Your task to perform on an android device: toggle airplane mode Image 0: 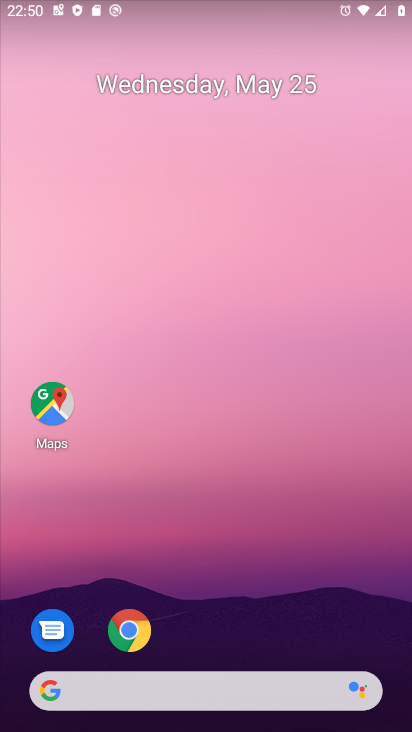
Step 0: drag from (207, 626) to (212, 219)
Your task to perform on an android device: toggle airplane mode Image 1: 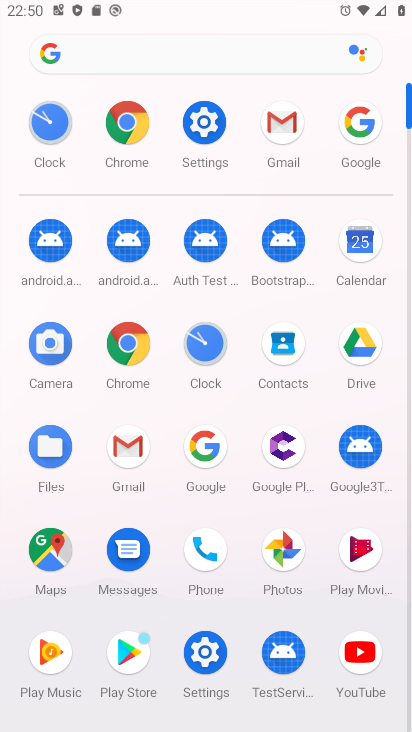
Step 1: click (219, 124)
Your task to perform on an android device: toggle airplane mode Image 2: 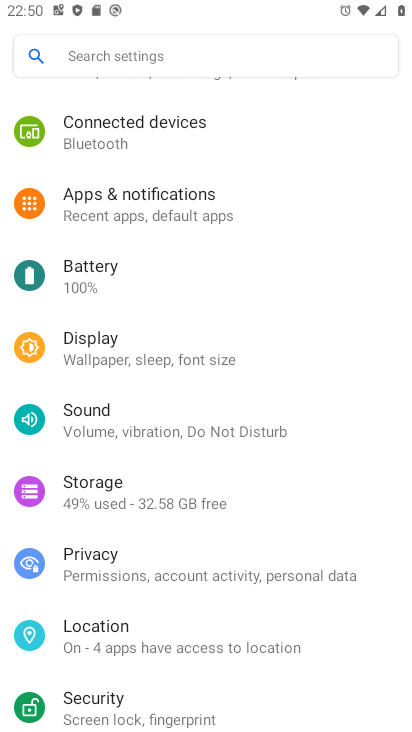
Step 2: drag from (236, 135) to (256, 501)
Your task to perform on an android device: toggle airplane mode Image 3: 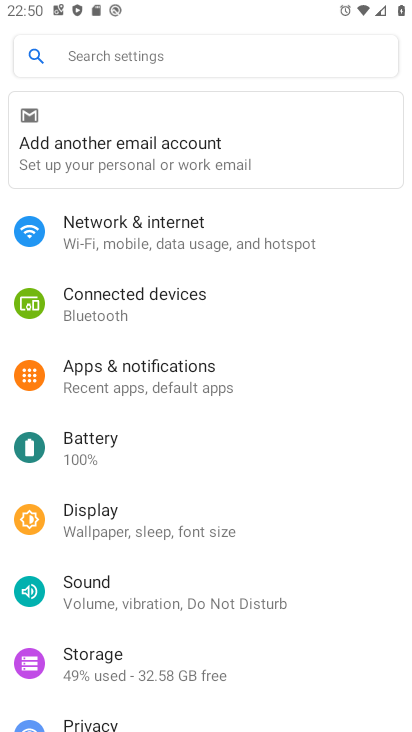
Step 3: click (169, 236)
Your task to perform on an android device: toggle airplane mode Image 4: 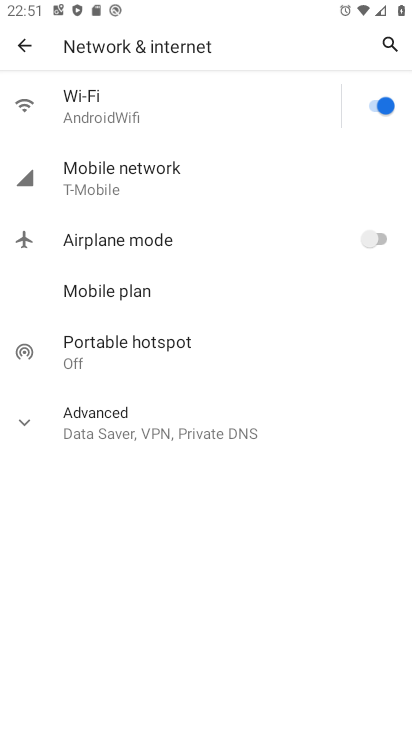
Step 4: click (377, 231)
Your task to perform on an android device: toggle airplane mode Image 5: 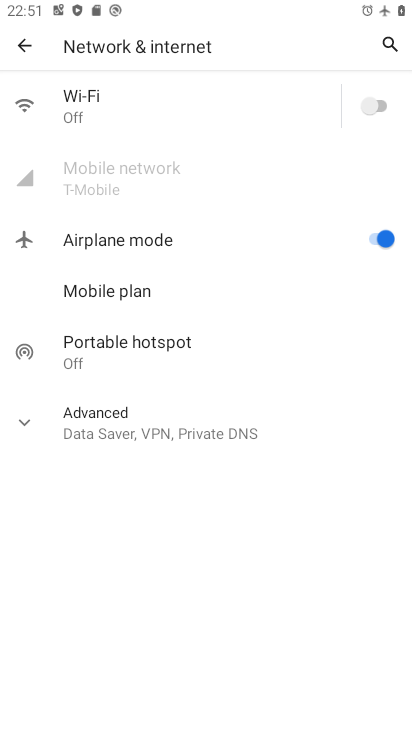
Step 5: task complete